Your task to perform on an android device: Search for Mexican restaurants on Maps Image 0: 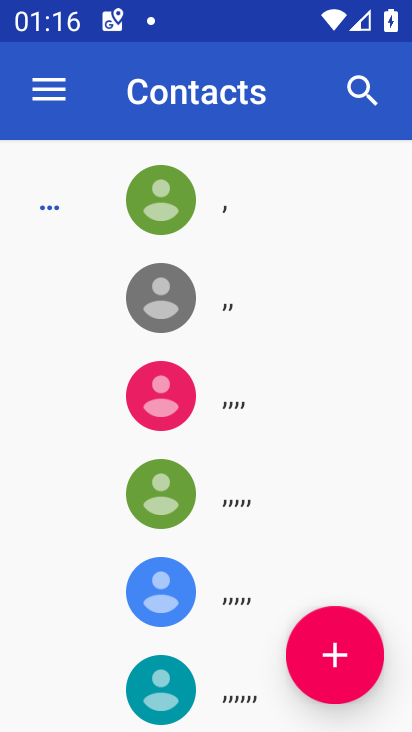
Step 0: press home button
Your task to perform on an android device: Search for Mexican restaurants on Maps Image 1: 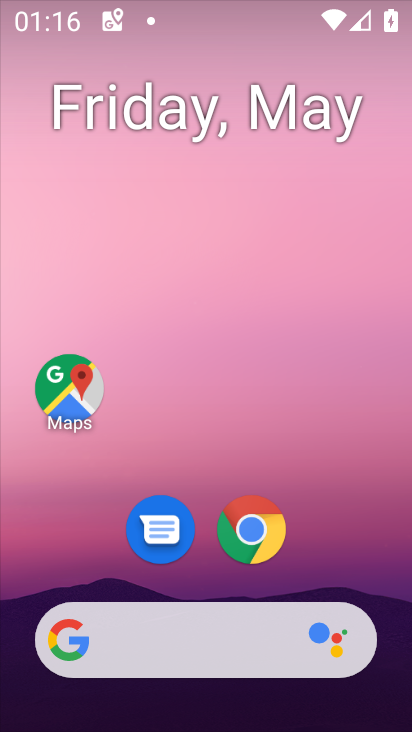
Step 1: drag from (236, 492) to (236, 222)
Your task to perform on an android device: Search for Mexican restaurants on Maps Image 2: 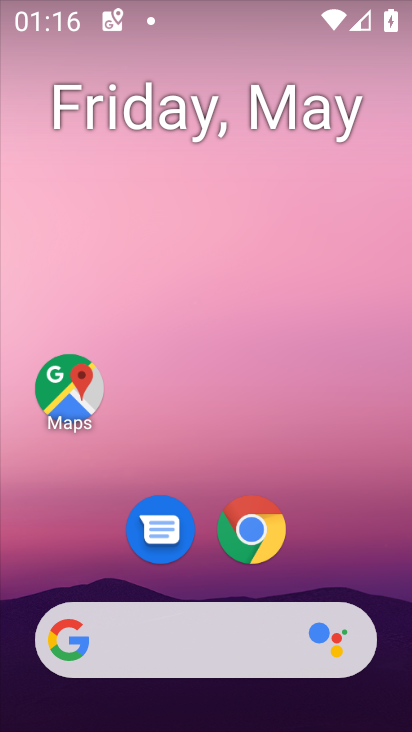
Step 2: click (59, 389)
Your task to perform on an android device: Search for Mexican restaurants on Maps Image 3: 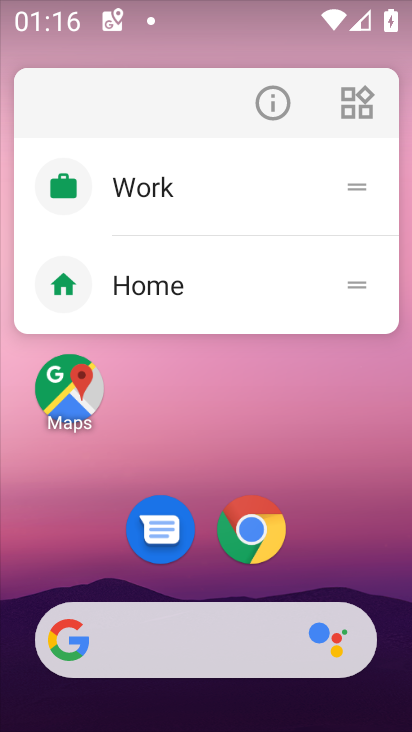
Step 3: click (59, 389)
Your task to perform on an android device: Search for Mexican restaurants on Maps Image 4: 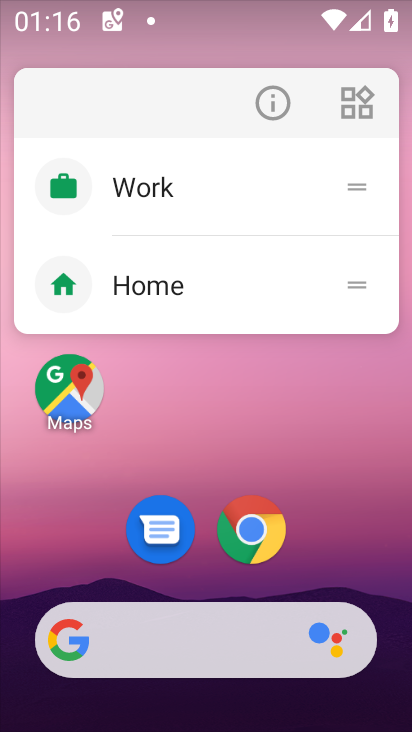
Step 4: click (59, 389)
Your task to perform on an android device: Search for Mexican restaurants on Maps Image 5: 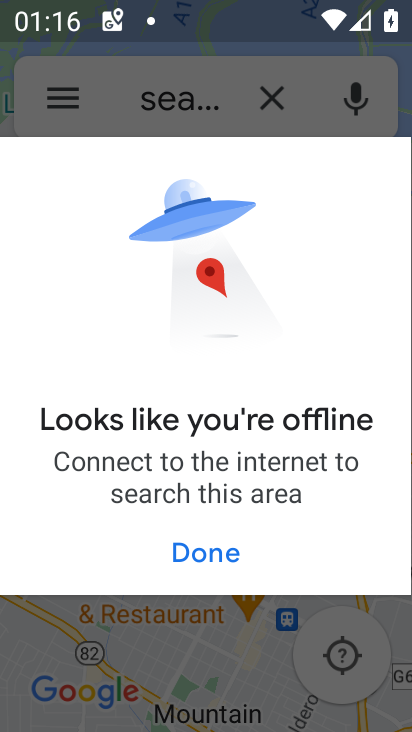
Step 5: click (212, 552)
Your task to perform on an android device: Search for Mexican restaurants on Maps Image 6: 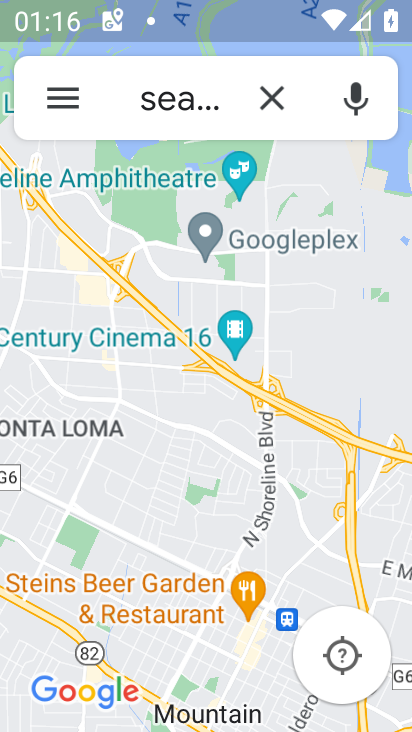
Step 6: click (269, 96)
Your task to perform on an android device: Search for Mexican restaurants on Maps Image 7: 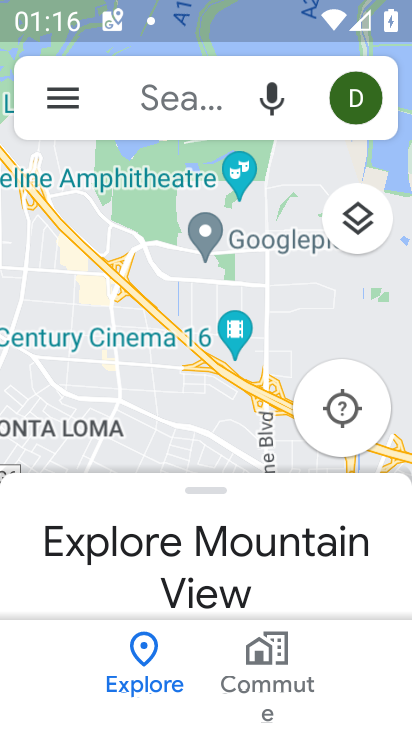
Step 7: click (162, 100)
Your task to perform on an android device: Search for Mexican restaurants on Maps Image 8: 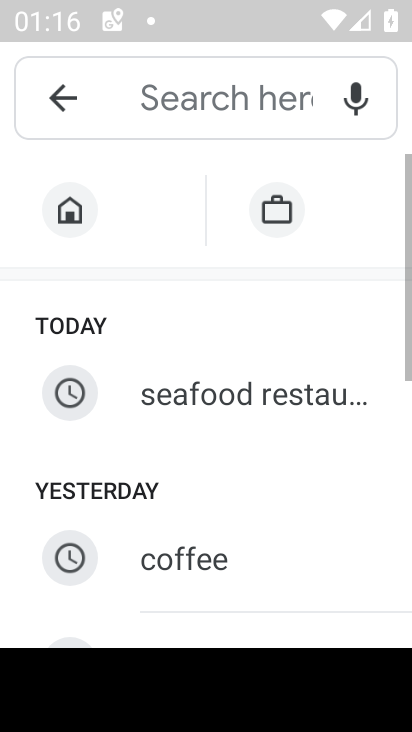
Step 8: drag from (197, 573) to (271, 158)
Your task to perform on an android device: Search for Mexican restaurants on Maps Image 9: 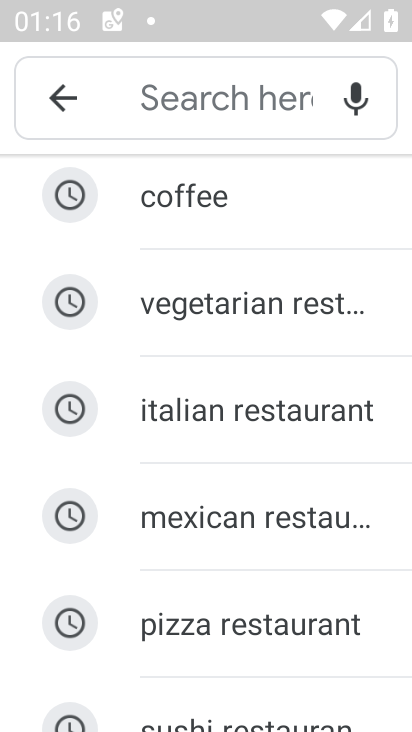
Step 9: click (184, 510)
Your task to perform on an android device: Search for Mexican restaurants on Maps Image 10: 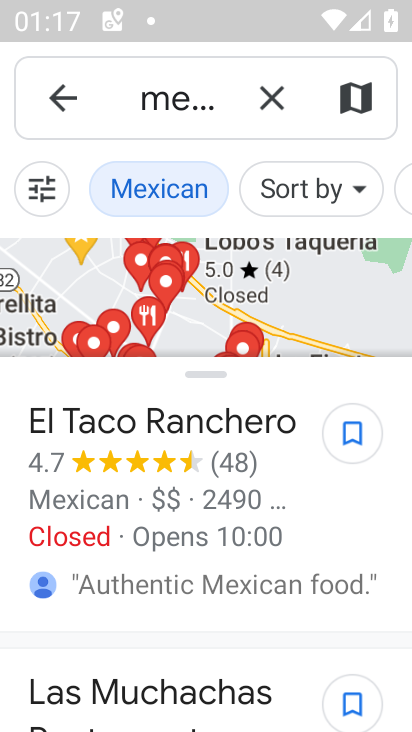
Step 10: task complete